Your task to perform on an android device: Open display settings Image 0: 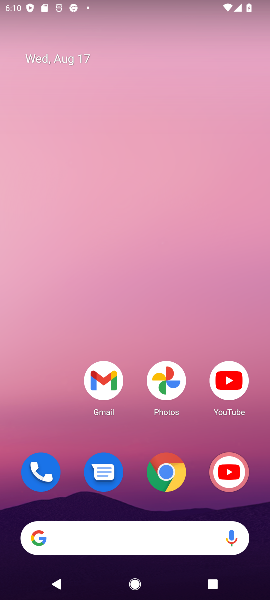
Step 0: drag from (142, 441) to (141, 98)
Your task to perform on an android device: Open display settings Image 1: 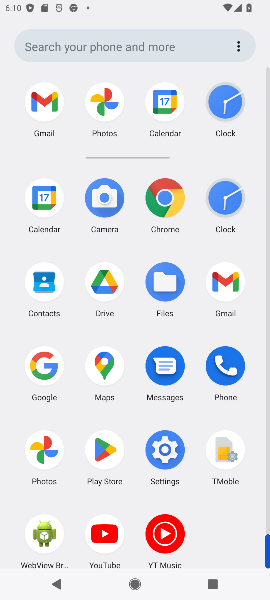
Step 1: click (169, 458)
Your task to perform on an android device: Open display settings Image 2: 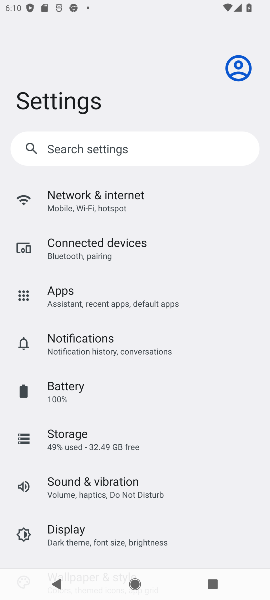
Step 2: drag from (89, 463) to (96, 218)
Your task to perform on an android device: Open display settings Image 3: 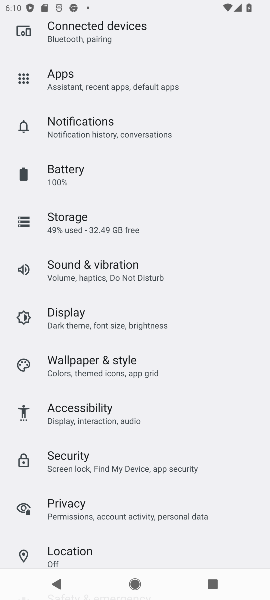
Step 3: drag from (84, 223) to (116, 464)
Your task to perform on an android device: Open display settings Image 4: 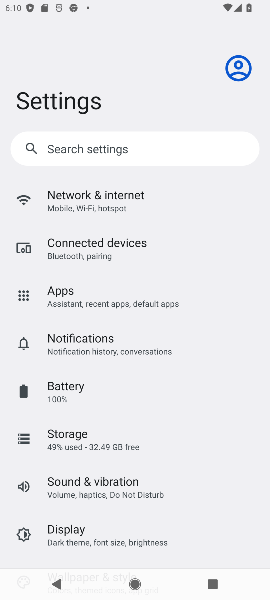
Step 4: drag from (106, 453) to (108, 288)
Your task to perform on an android device: Open display settings Image 5: 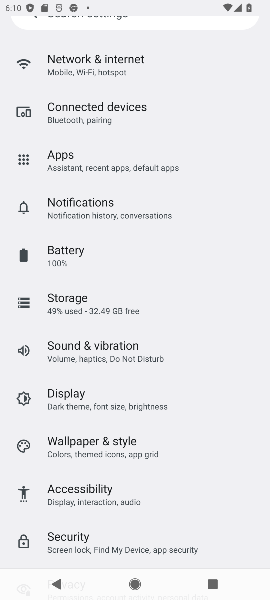
Step 5: click (105, 394)
Your task to perform on an android device: Open display settings Image 6: 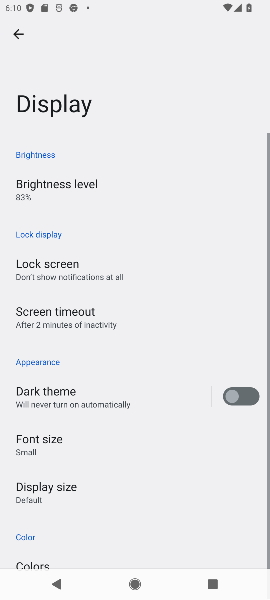
Step 6: task complete